Your task to perform on an android device: Open Google Maps Image 0: 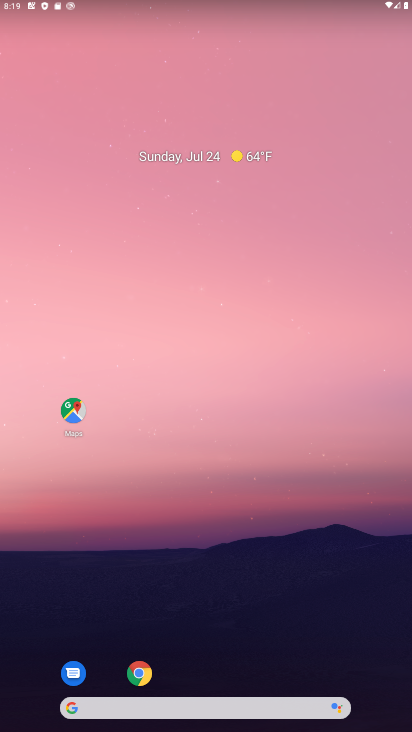
Step 0: click (79, 416)
Your task to perform on an android device: Open Google Maps Image 1: 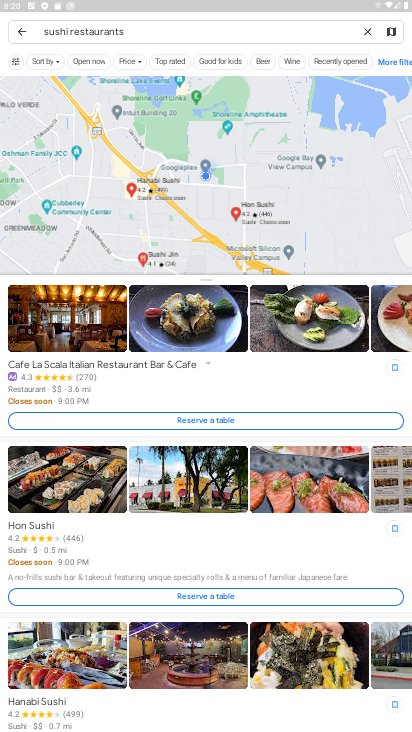
Step 1: task complete